Your task to perform on an android device: Open Google Chrome and open the bookmarks view Image 0: 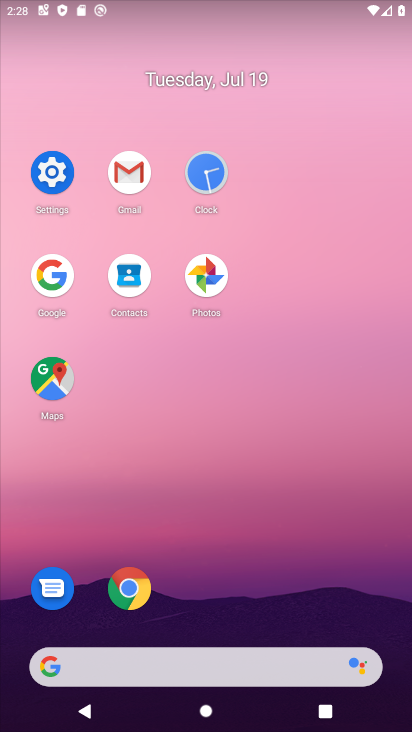
Step 0: click (134, 594)
Your task to perform on an android device: Open Google Chrome and open the bookmarks view Image 1: 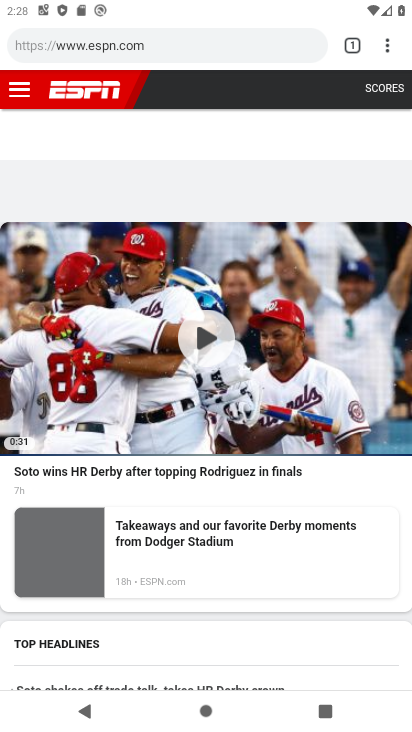
Step 1: click (387, 51)
Your task to perform on an android device: Open Google Chrome and open the bookmarks view Image 2: 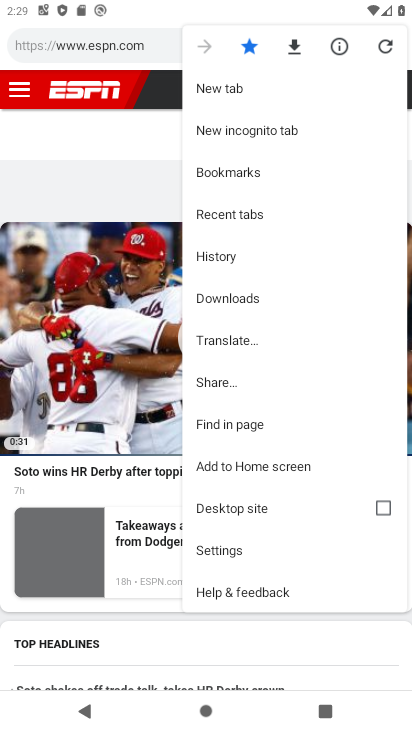
Step 2: click (269, 175)
Your task to perform on an android device: Open Google Chrome and open the bookmarks view Image 3: 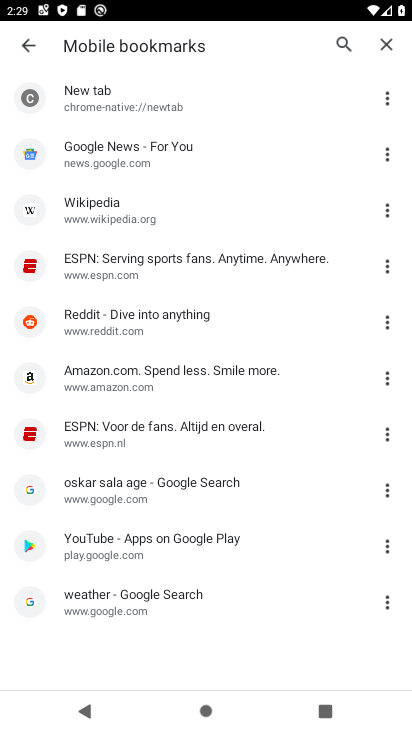
Step 3: task complete